Your task to perform on an android device: turn on data saver in the chrome app Image 0: 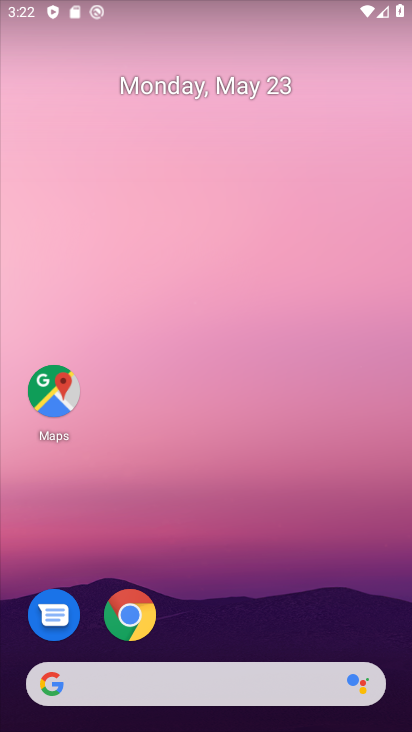
Step 0: drag from (232, 594) to (178, 27)
Your task to perform on an android device: turn on data saver in the chrome app Image 1: 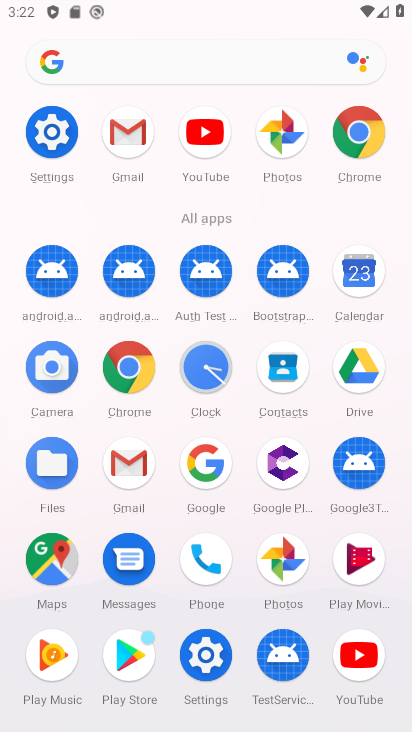
Step 1: drag from (13, 601) to (8, 244)
Your task to perform on an android device: turn on data saver in the chrome app Image 2: 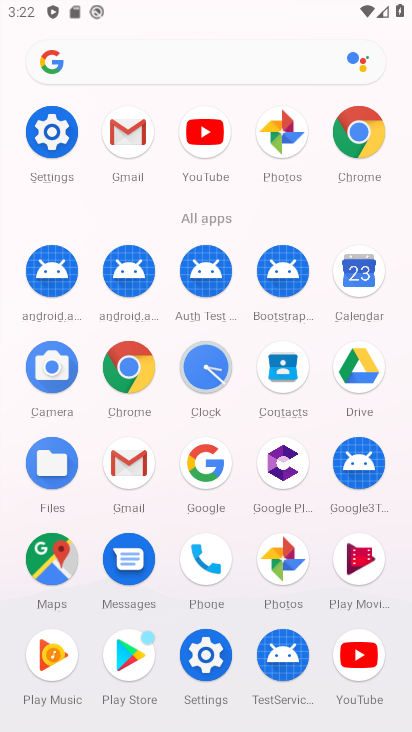
Step 2: click (125, 359)
Your task to perform on an android device: turn on data saver in the chrome app Image 3: 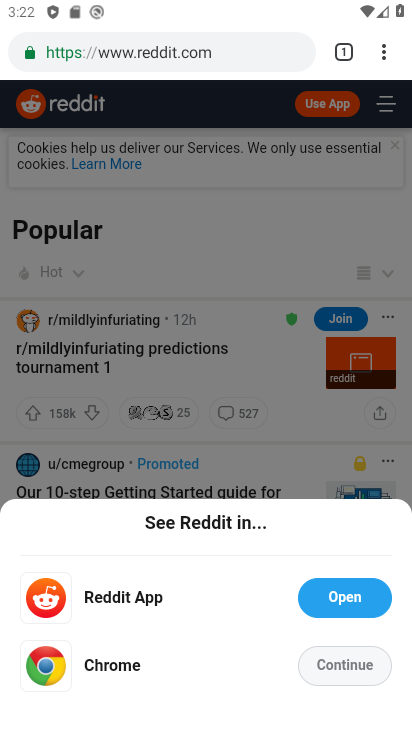
Step 3: drag from (382, 52) to (221, 636)
Your task to perform on an android device: turn on data saver in the chrome app Image 4: 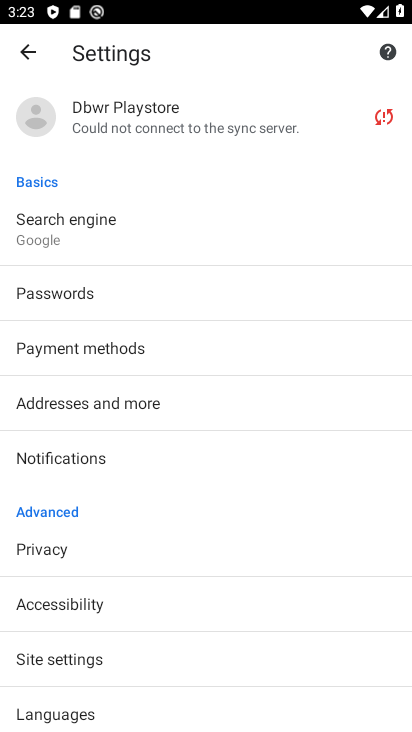
Step 4: drag from (224, 574) to (229, 228)
Your task to perform on an android device: turn on data saver in the chrome app Image 5: 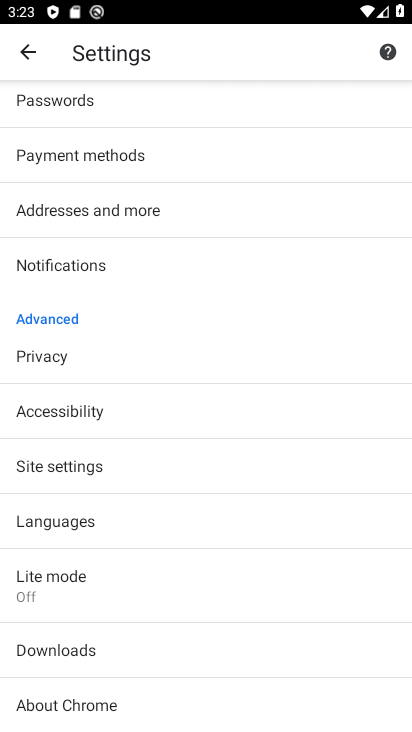
Step 5: click (121, 590)
Your task to perform on an android device: turn on data saver in the chrome app Image 6: 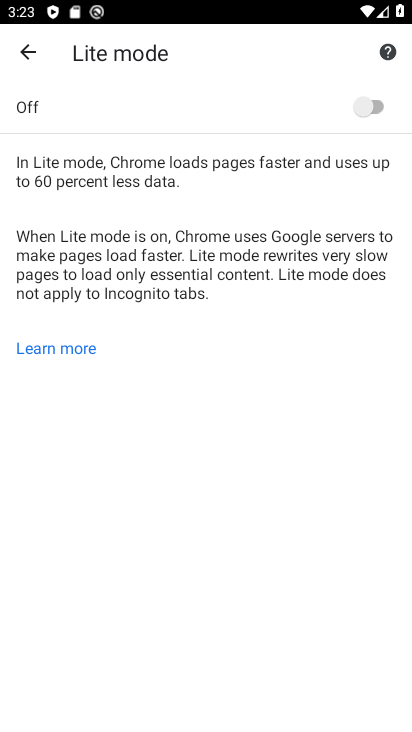
Step 6: click (369, 90)
Your task to perform on an android device: turn on data saver in the chrome app Image 7: 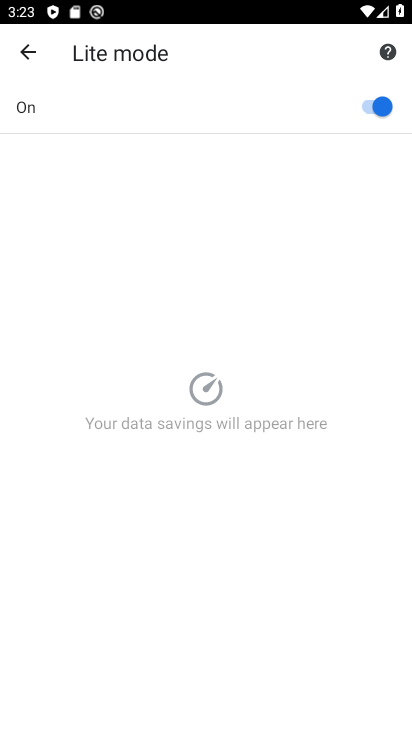
Step 7: task complete